Your task to perform on an android device: What's the weather? Image 0: 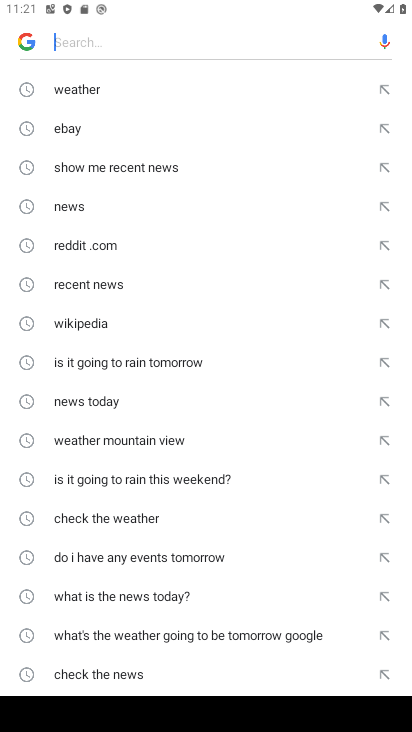
Step 0: type "What's the weather?"
Your task to perform on an android device: What's the weather? Image 1: 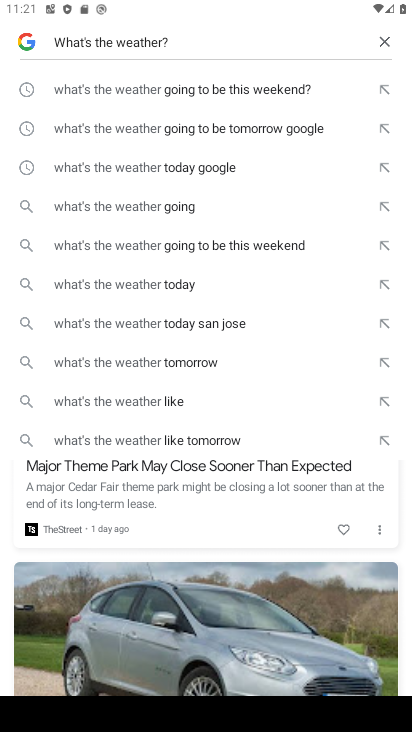
Step 1: click (172, 206)
Your task to perform on an android device: What's the weather? Image 2: 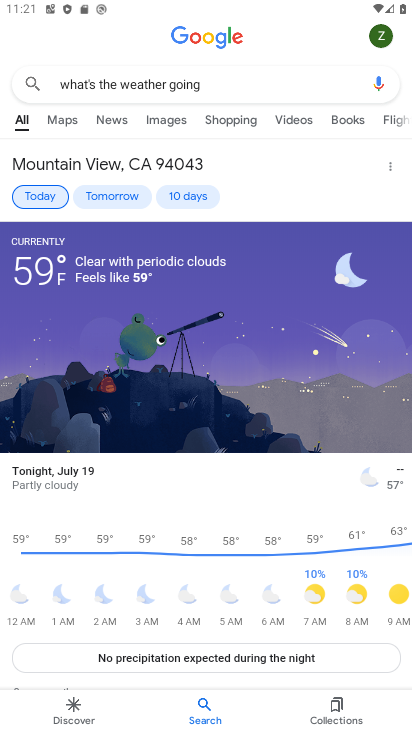
Step 2: task complete